Your task to perform on an android device: delete the emails in spam in the gmail app Image 0: 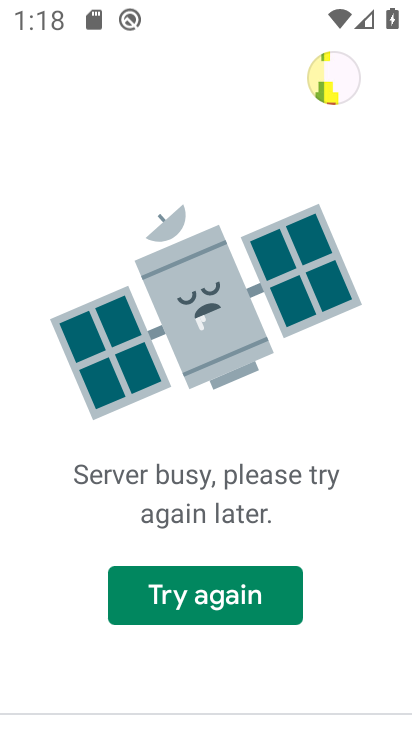
Step 0: press home button
Your task to perform on an android device: delete the emails in spam in the gmail app Image 1: 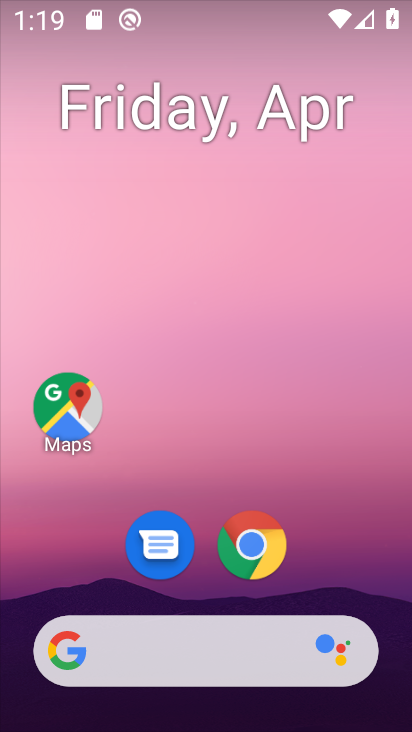
Step 1: drag from (383, 583) to (346, 138)
Your task to perform on an android device: delete the emails in spam in the gmail app Image 2: 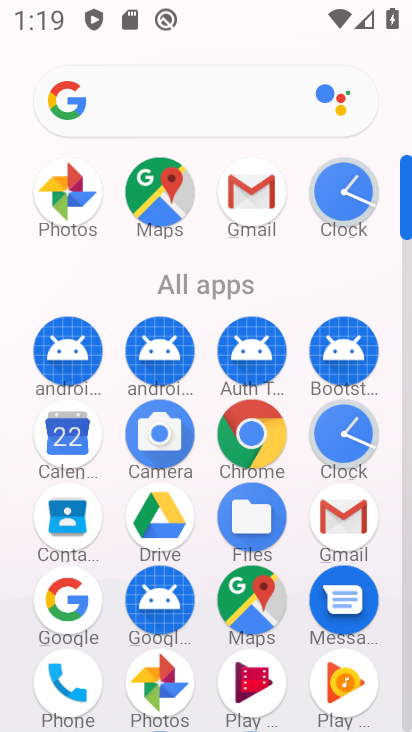
Step 2: click (342, 510)
Your task to perform on an android device: delete the emails in spam in the gmail app Image 3: 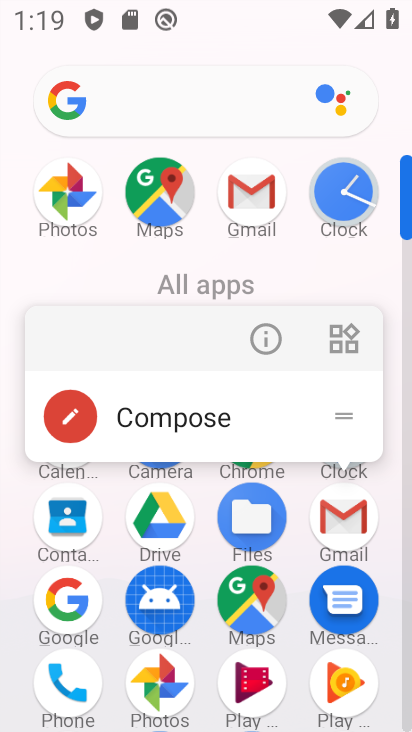
Step 3: click (339, 510)
Your task to perform on an android device: delete the emails in spam in the gmail app Image 4: 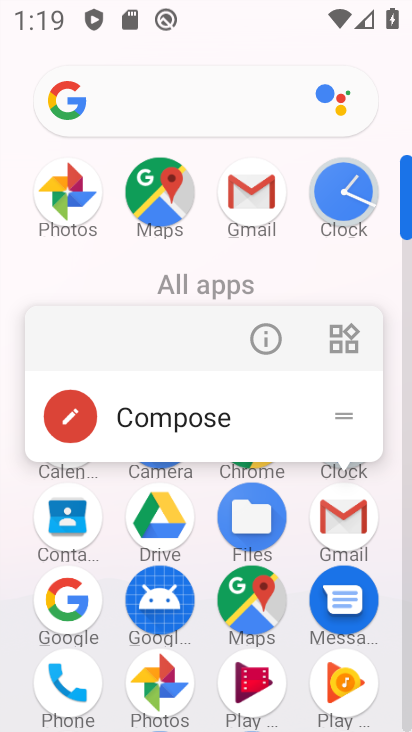
Step 4: click (323, 536)
Your task to perform on an android device: delete the emails in spam in the gmail app Image 5: 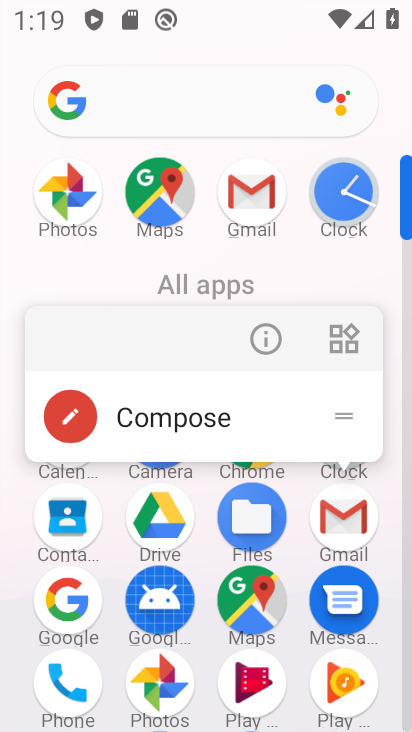
Step 5: click (357, 535)
Your task to perform on an android device: delete the emails in spam in the gmail app Image 6: 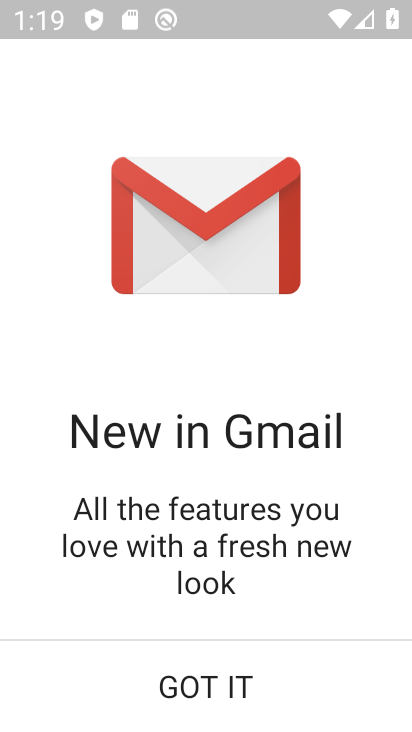
Step 6: click (231, 676)
Your task to perform on an android device: delete the emails in spam in the gmail app Image 7: 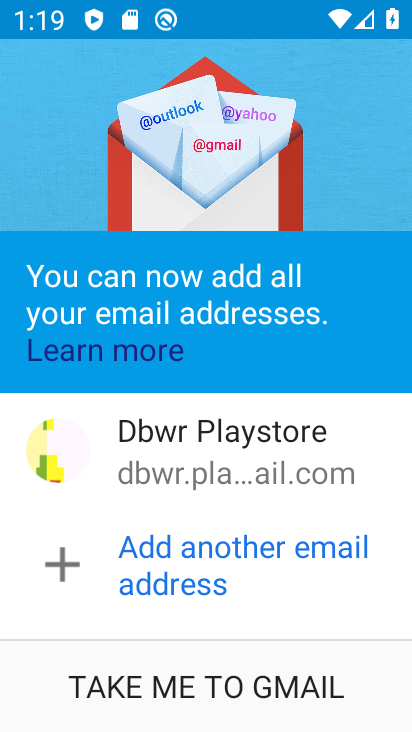
Step 7: click (237, 672)
Your task to perform on an android device: delete the emails in spam in the gmail app Image 8: 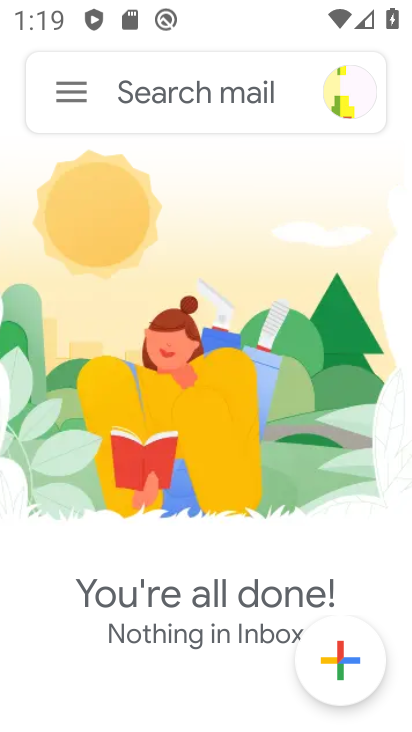
Step 8: click (62, 97)
Your task to perform on an android device: delete the emails in spam in the gmail app Image 9: 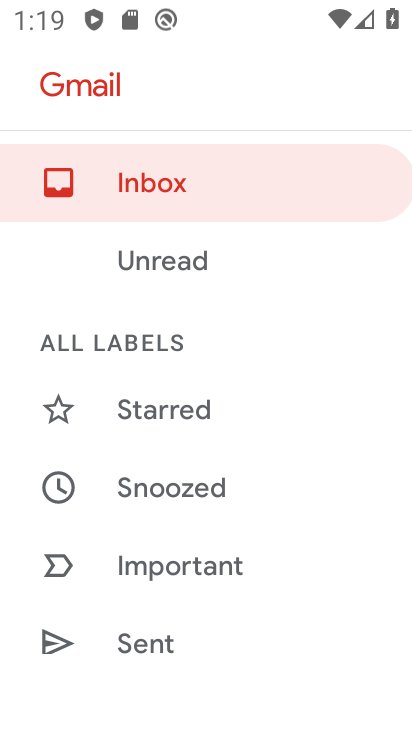
Step 9: drag from (252, 633) to (242, 288)
Your task to perform on an android device: delete the emails in spam in the gmail app Image 10: 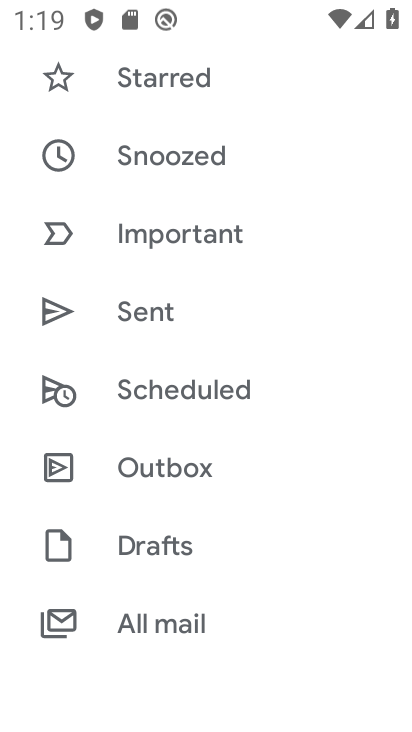
Step 10: drag from (267, 611) to (315, 197)
Your task to perform on an android device: delete the emails in spam in the gmail app Image 11: 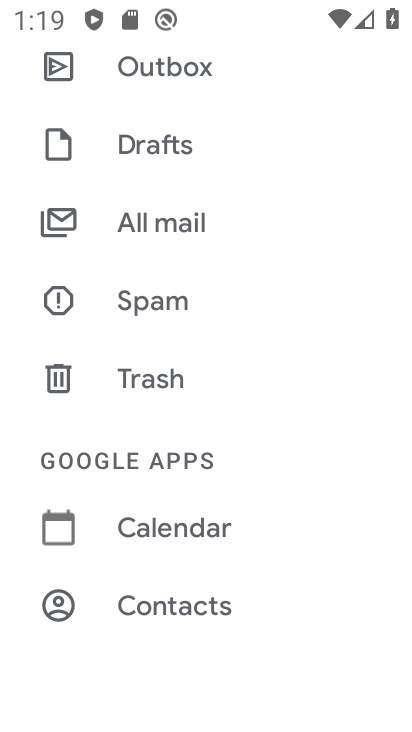
Step 11: click (186, 297)
Your task to perform on an android device: delete the emails in spam in the gmail app Image 12: 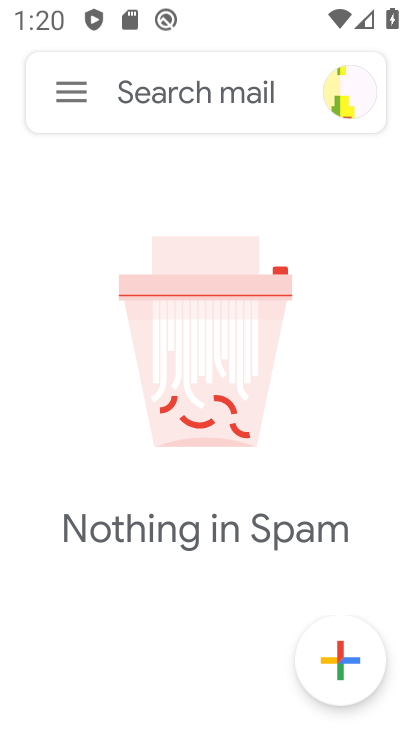
Step 12: task complete